Your task to perform on an android device: toggle wifi Image 0: 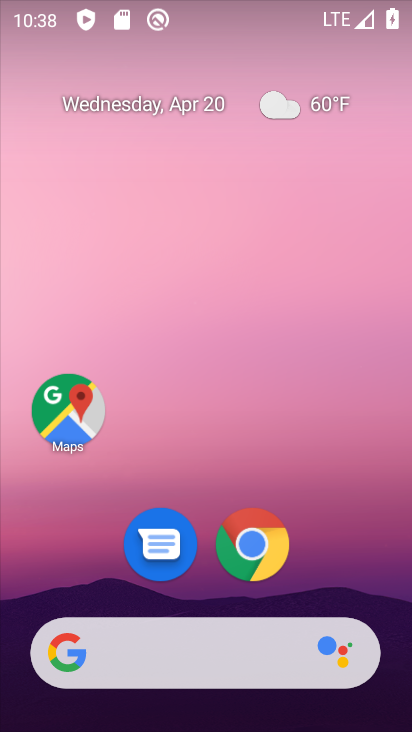
Step 0: drag from (359, 535) to (287, 201)
Your task to perform on an android device: toggle wifi Image 1: 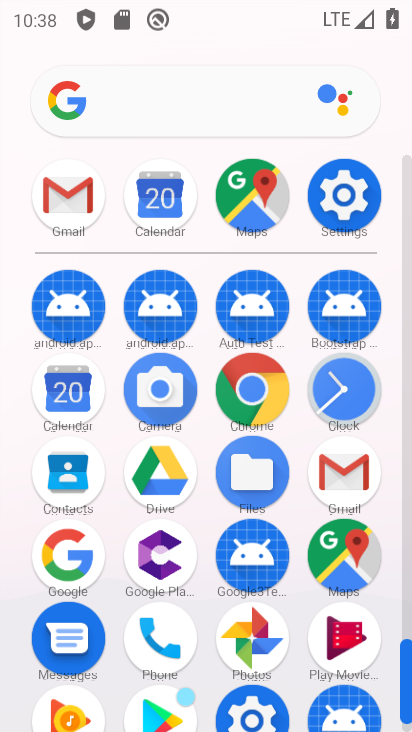
Step 1: click (366, 192)
Your task to perform on an android device: toggle wifi Image 2: 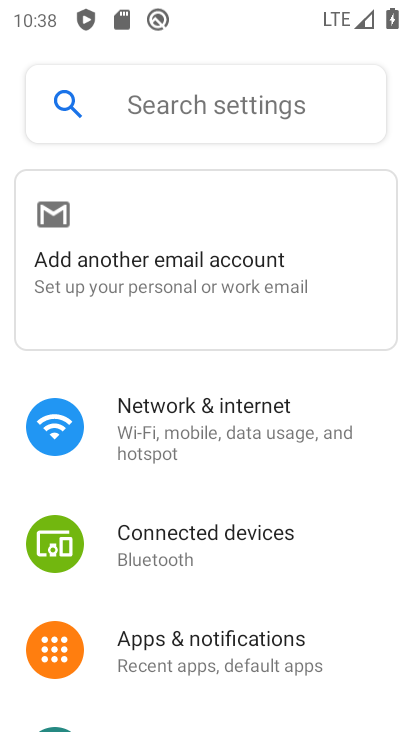
Step 2: click (326, 411)
Your task to perform on an android device: toggle wifi Image 3: 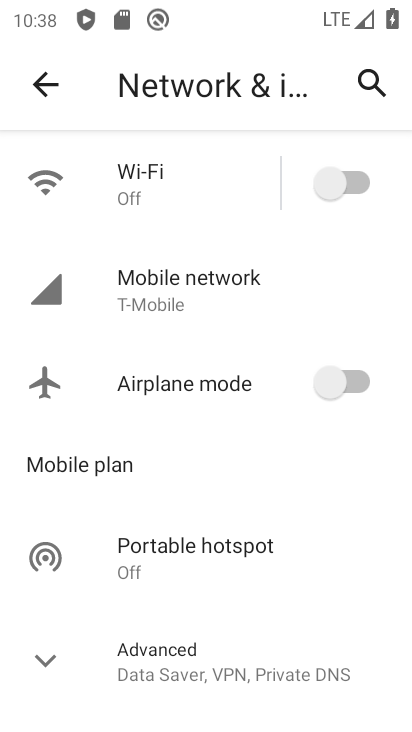
Step 3: click (353, 201)
Your task to perform on an android device: toggle wifi Image 4: 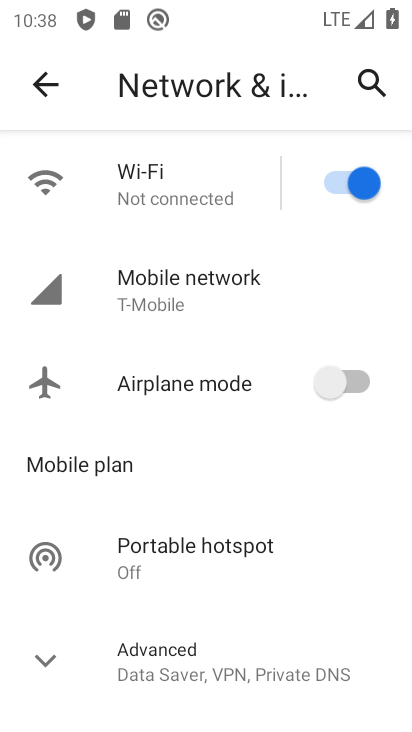
Step 4: task complete